Your task to perform on an android device: turn off priority inbox in the gmail app Image 0: 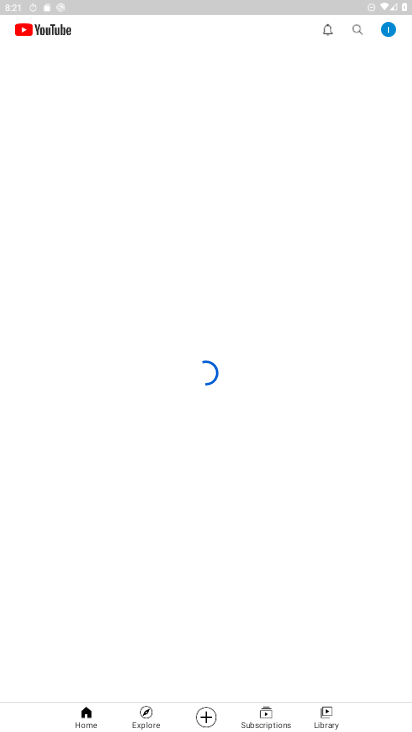
Step 0: press home button
Your task to perform on an android device: turn off priority inbox in the gmail app Image 1: 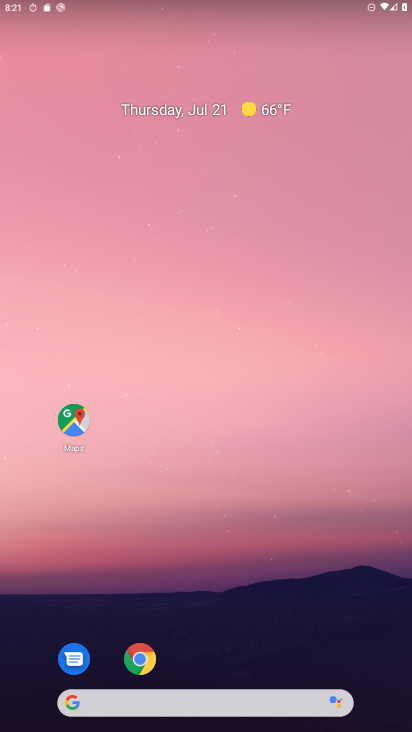
Step 1: drag from (216, 640) to (247, 466)
Your task to perform on an android device: turn off priority inbox in the gmail app Image 2: 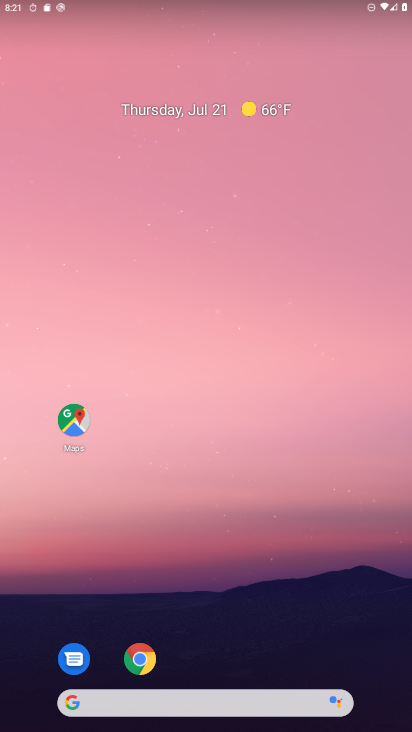
Step 2: drag from (182, 643) to (250, 317)
Your task to perform on an android device: turn off priority inbox in the gmail app Image 3: 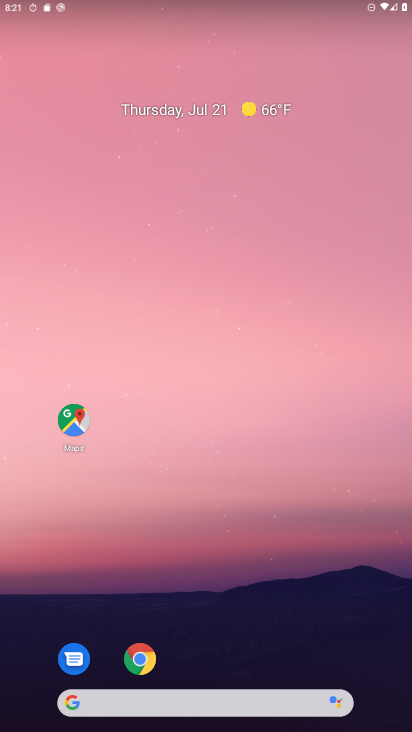
Step 3: drag from (199, 688) to (274, 233)
Your task to perform on an android device: turn off priority inbox in the gmail app Image 4: 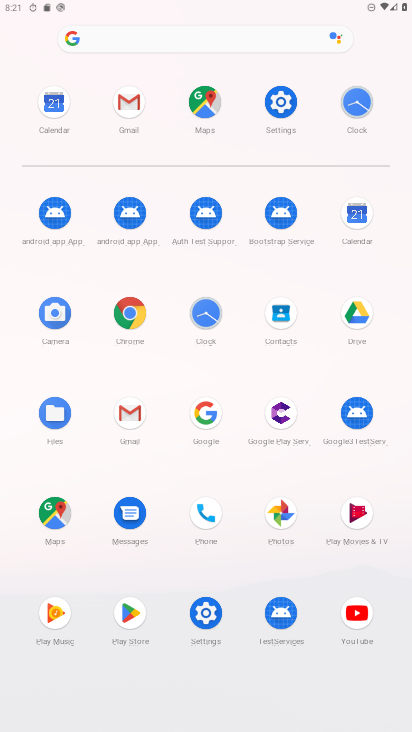
Step 4: click (124, 98)
Your task to perform on an android device: turn off priority inbox in the gmail app Image 5: 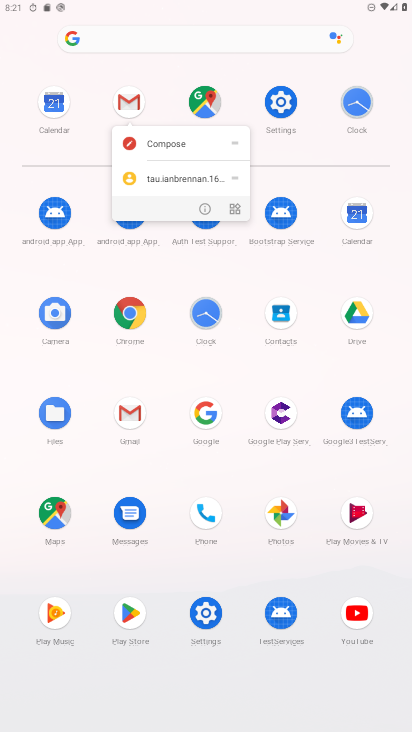
Step 5: click (194, 209)
Your task to perform on an android device: turn off priority inbox in the gmail app Image 6: 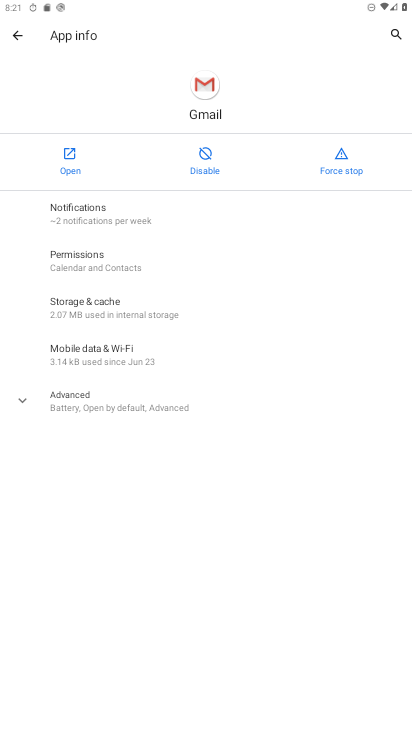
Step 6: click (75, 175)
Your task to perform on an android device: turn off priority inbox in the gmail app Image 7: 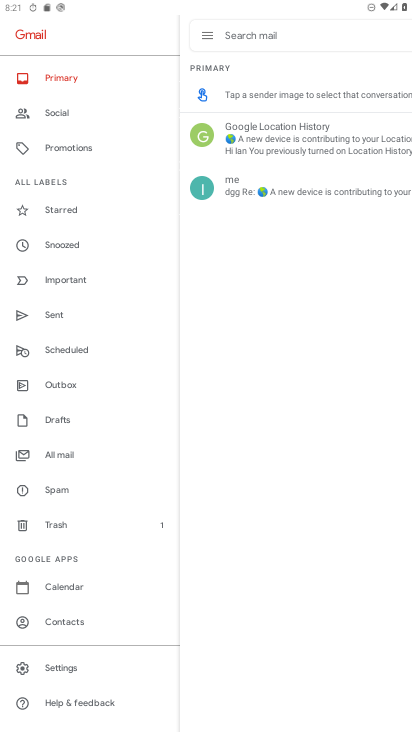
Step 7: click (36, 667)
Your task to perform on an android device: turn off priority inbox in the gmail app Image 8: 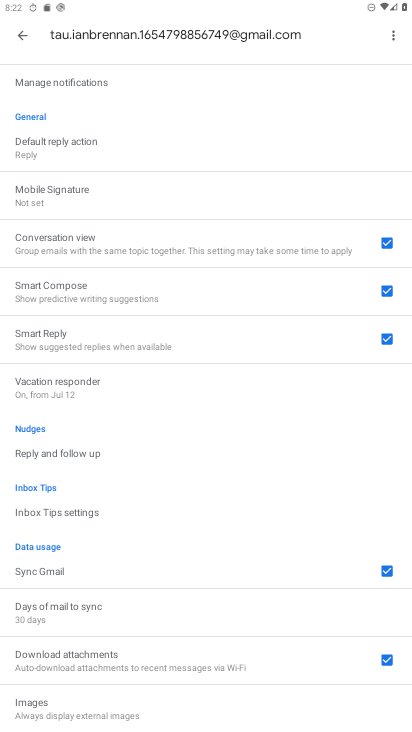
Step 8: drag from (83, 166) to (128, 669)
Your task to perform on an android device: turn off priority inbox in the gmail app Image 9: 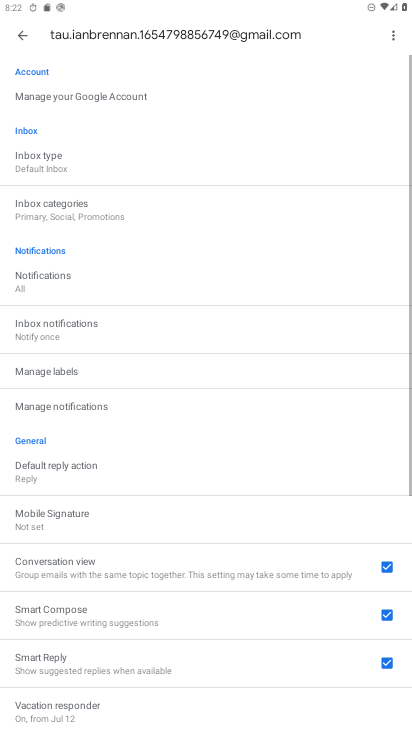
Step 9: click (100, 161)
Your task to perform on an android device: turn off priority inbox in the gmail app Image 10: 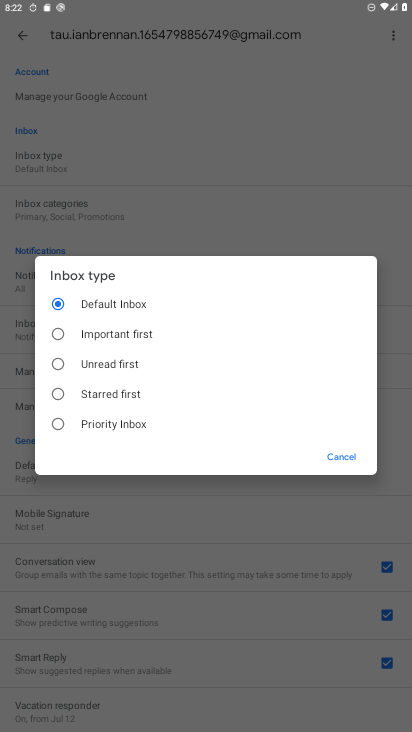
Step 10: click (64, 336)
Your task to perform on an android device: turn off priority inbox in the gmail app Image 11: 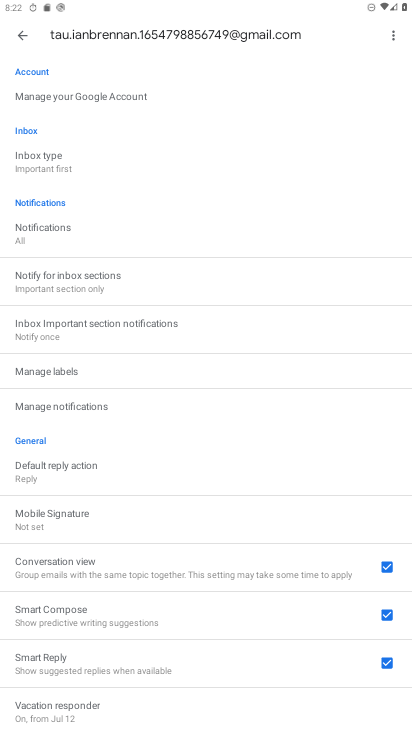
Step 11: task complete